Your task to perform on an android device: open a bookmark in the chrome app Image 0: 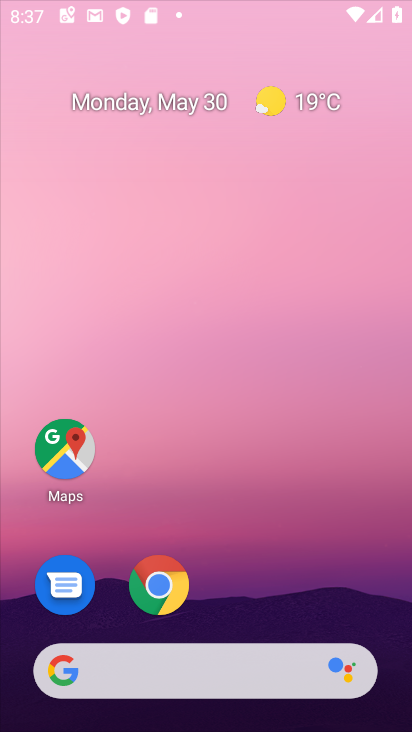
Step 0: click (326, 75)
Your task to perform on an android device: open a bookmark in the chrome app Image 1: 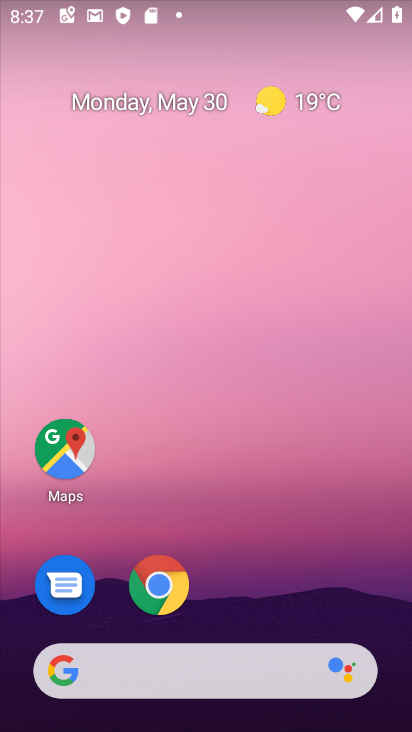
Step 1: drag from (241, 619) to (307, 112)
Your task to perform on an android device: open a bookmark in the chrome app Image 2: 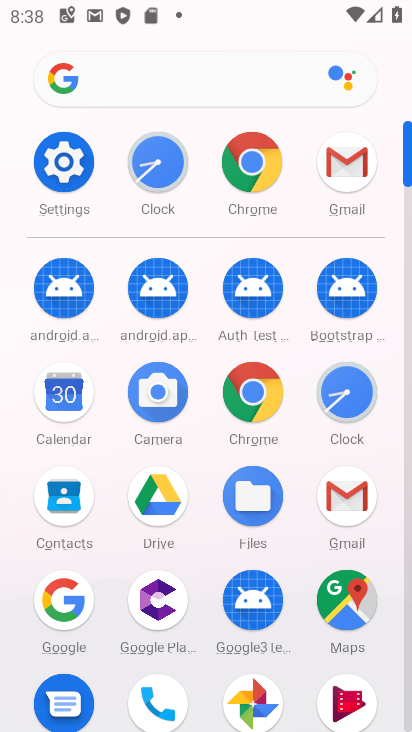
Step 2: click (181, 73)
Your task to perform on an android device: open a bookmark in the chrome app Image 3: 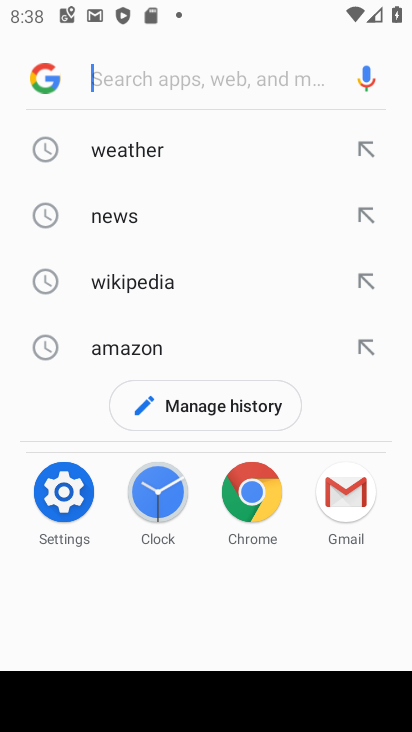
Step 3: press home button
Your task to perform on an android device: open a bookmark in the chrome app Image 4: 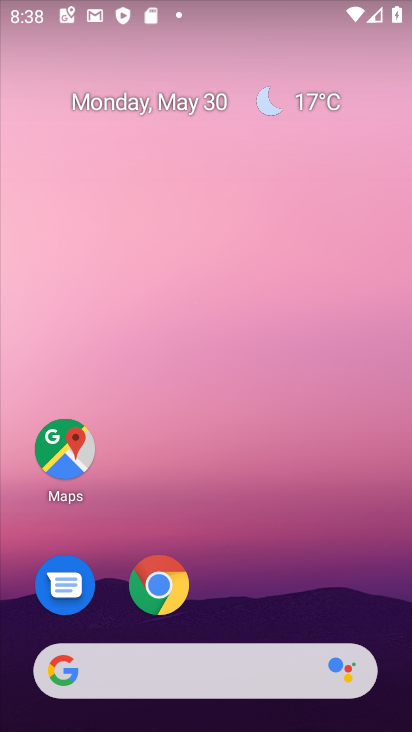
Step 4: drag from (229, 614) to (266, 128)
Your task to perform on an android device: open a bookmark in the chrome app Image 5: 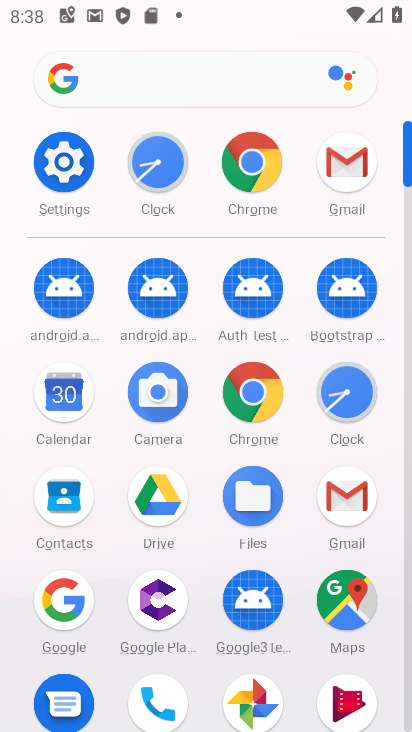
Step 5: click (246, 396)
Your task to perform on an android device: open a bookmark in the chrome app Image 6: 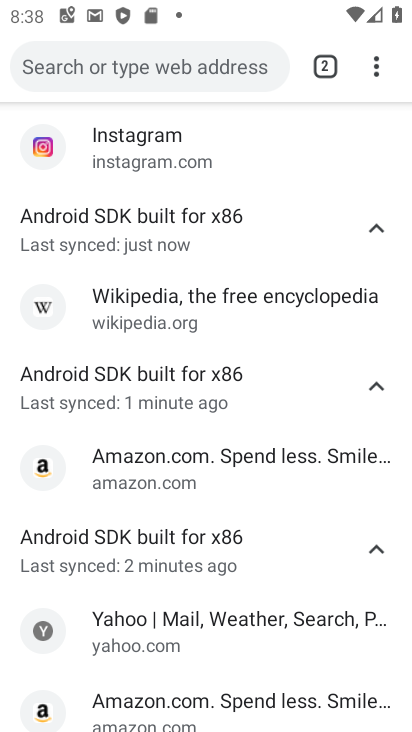
Step 6: task complete